Your task to perform on an android device: uninstall "Upside-Cash back on gas & food" Image 0: 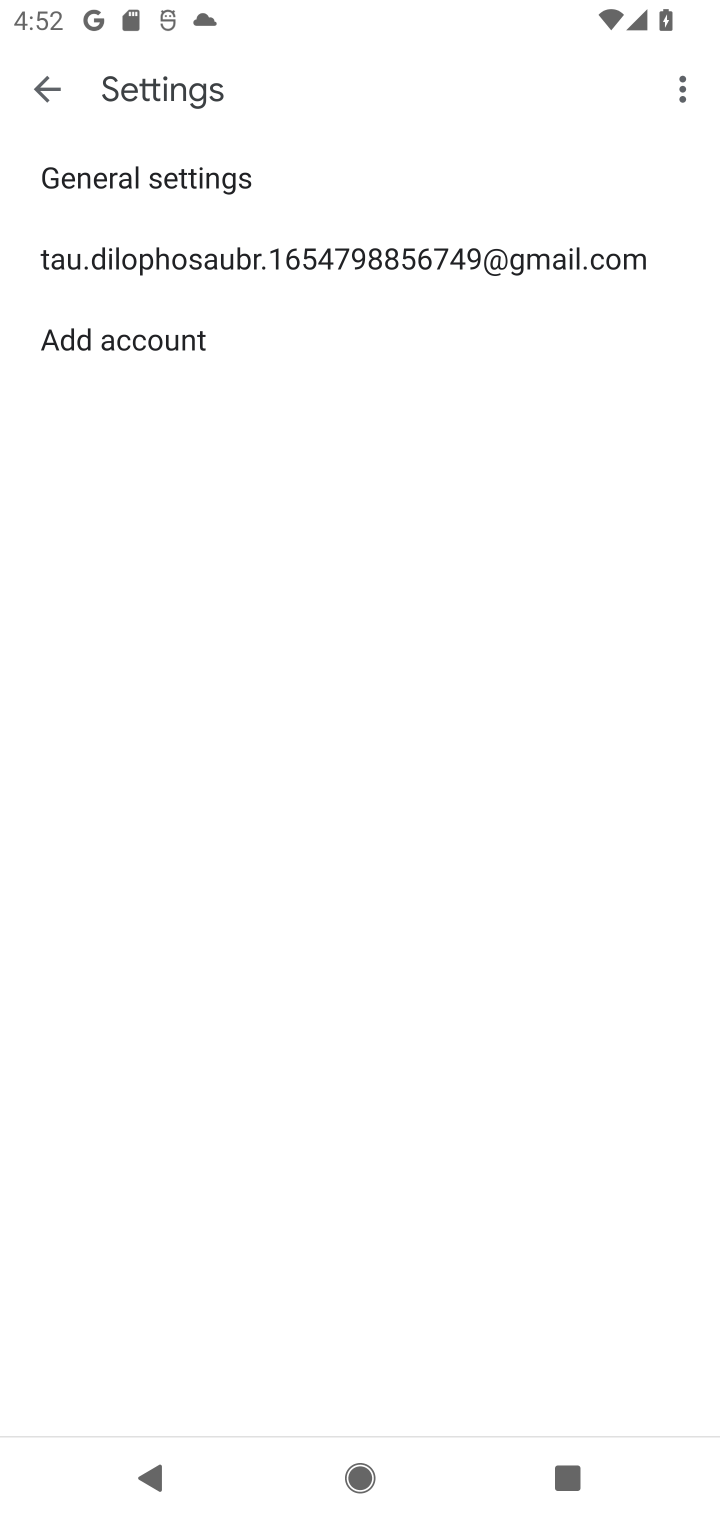
Step 0: press home button
Your task to perform on an android device: uninstall "Upside-Cash back on gas & food" Image 1: 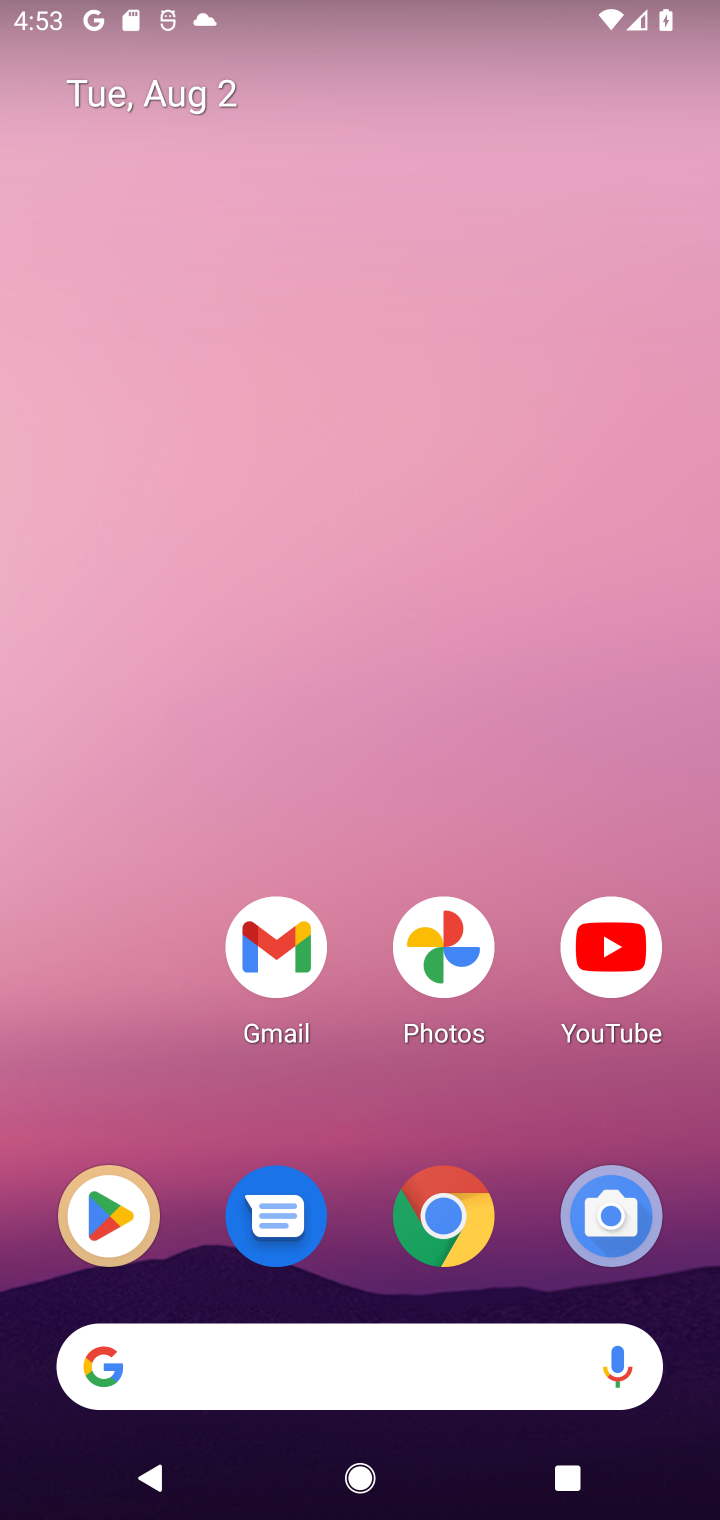
Step 1: click (88, 1254)
Your task to perform on an android device: uninstall "Upside-Cash back on gas & food" Image 2: 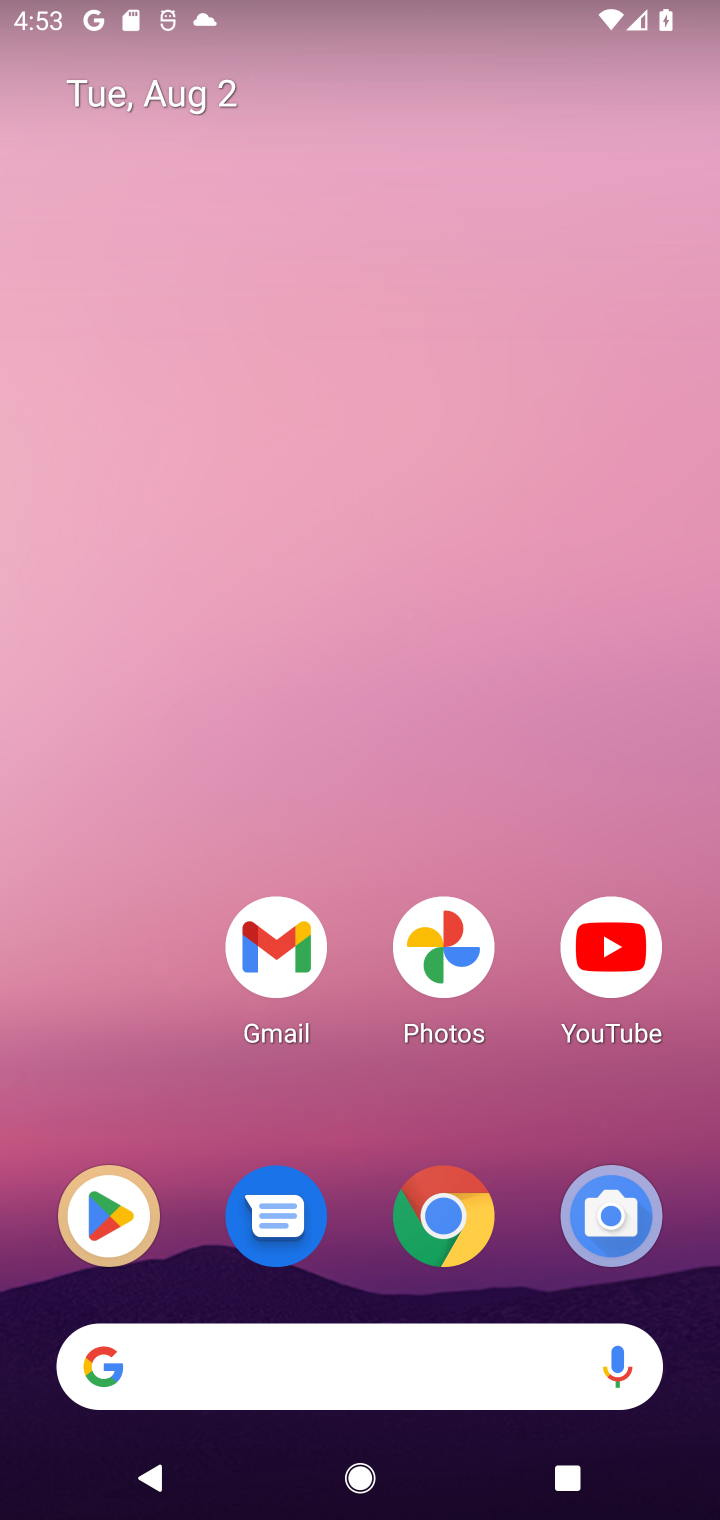
Step 2: click (128, 1241)
Your task to perform on an android device: uninstall "Upside-Cash back on gas & food" Image 3: 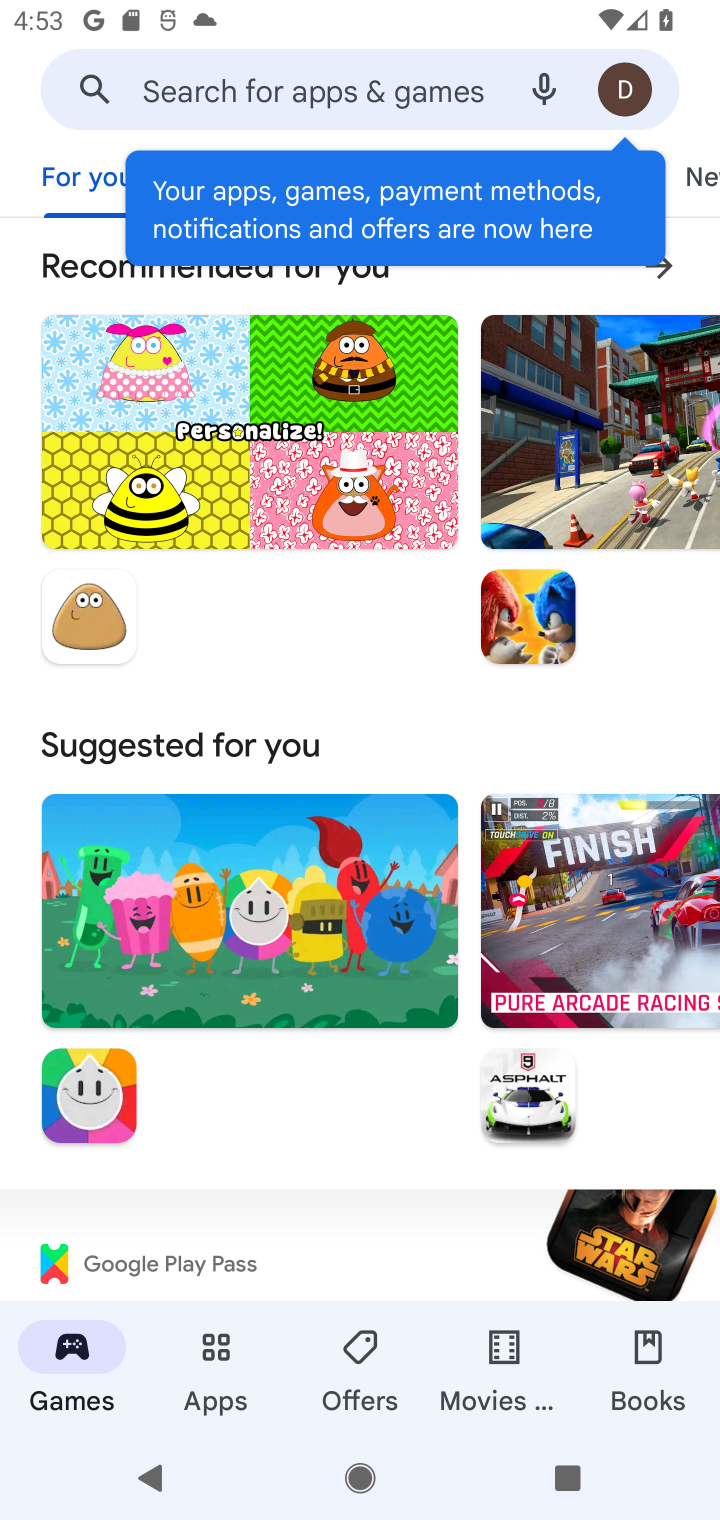
Step 3: click (416, 92)
Your task to perform on an android device: uninstall "Upside-Cash back on gas & food" Image 4: 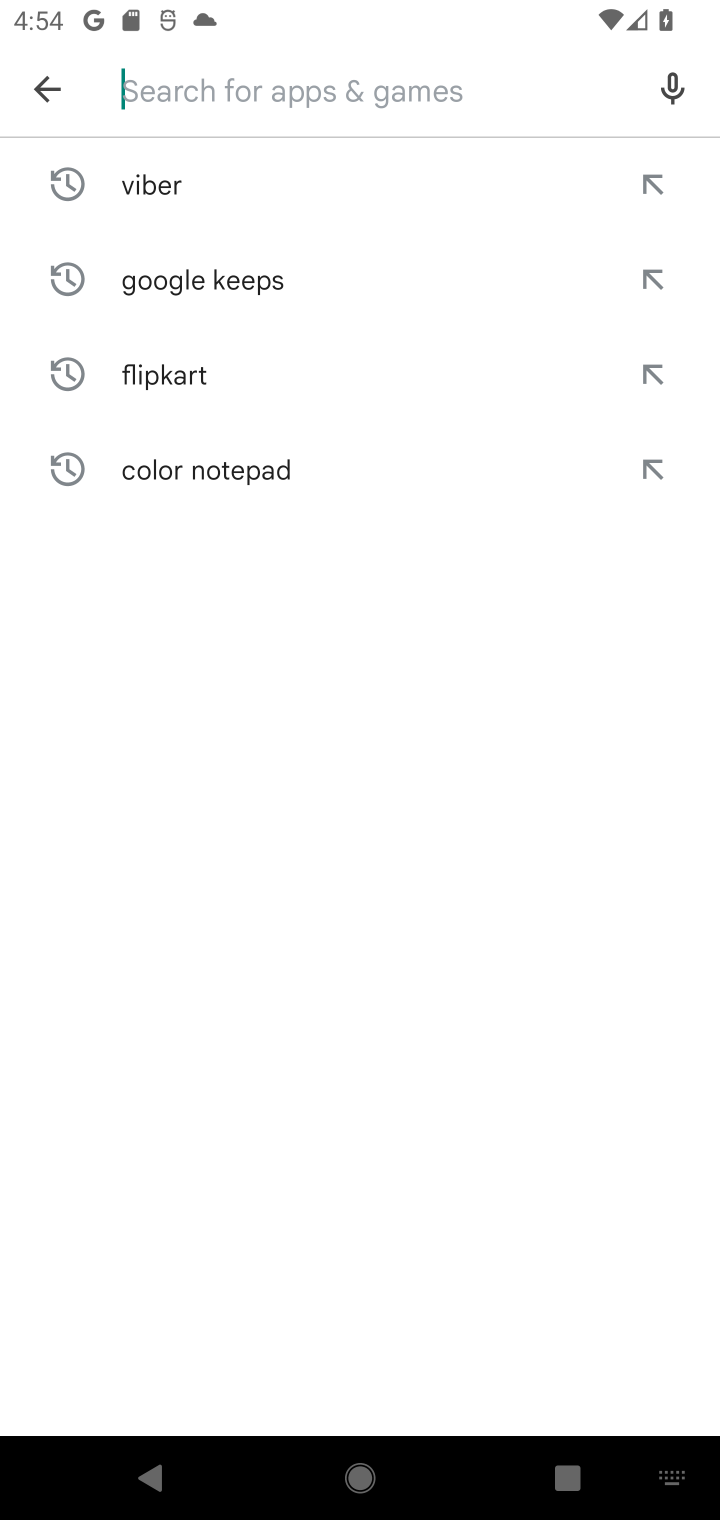
Step 4: type "uside"
Your task to perform on an android device: uninstall "Upside-Cash back on gas & food" Image 5: 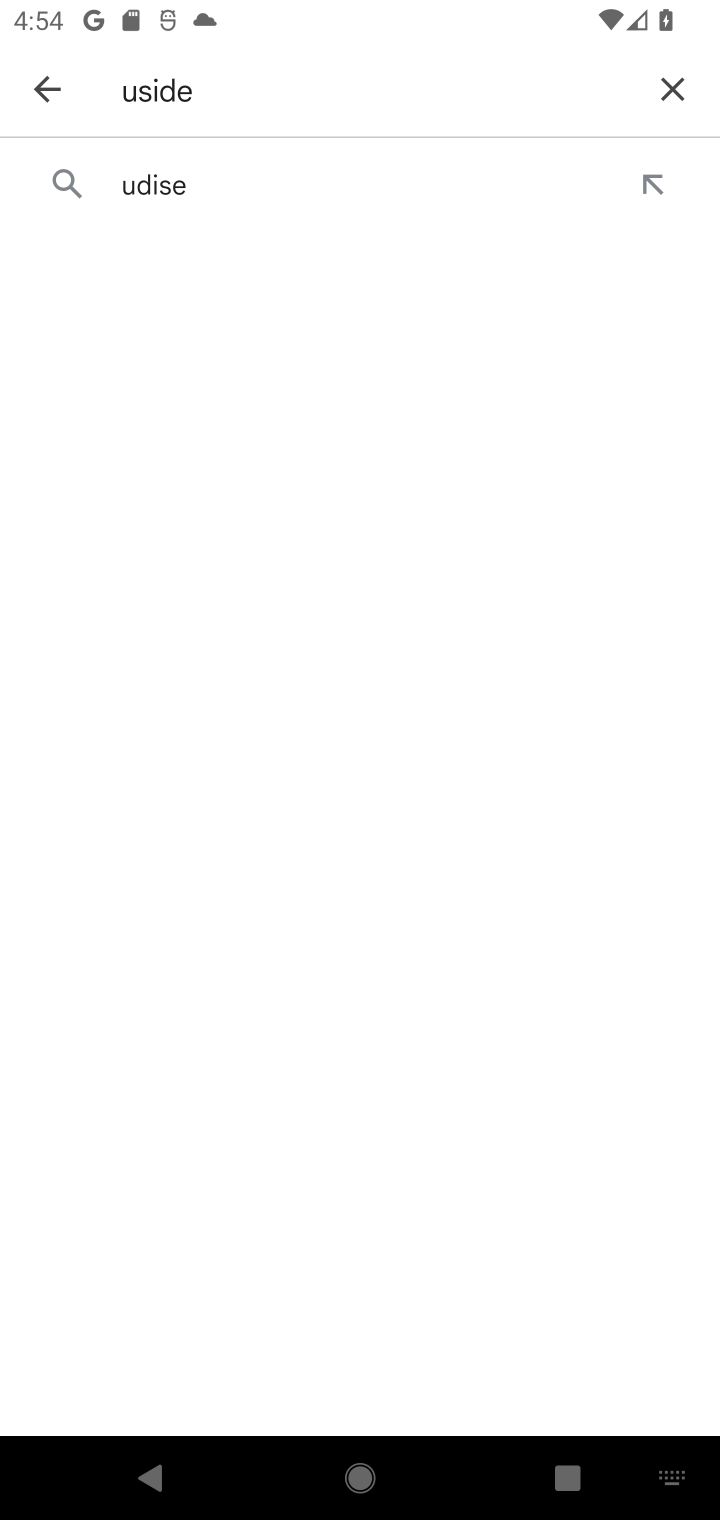
Step 5: click (241, 182)
Your task to perform on an android device: uninstall "Upside-Cash back on gas & food" Image 6: 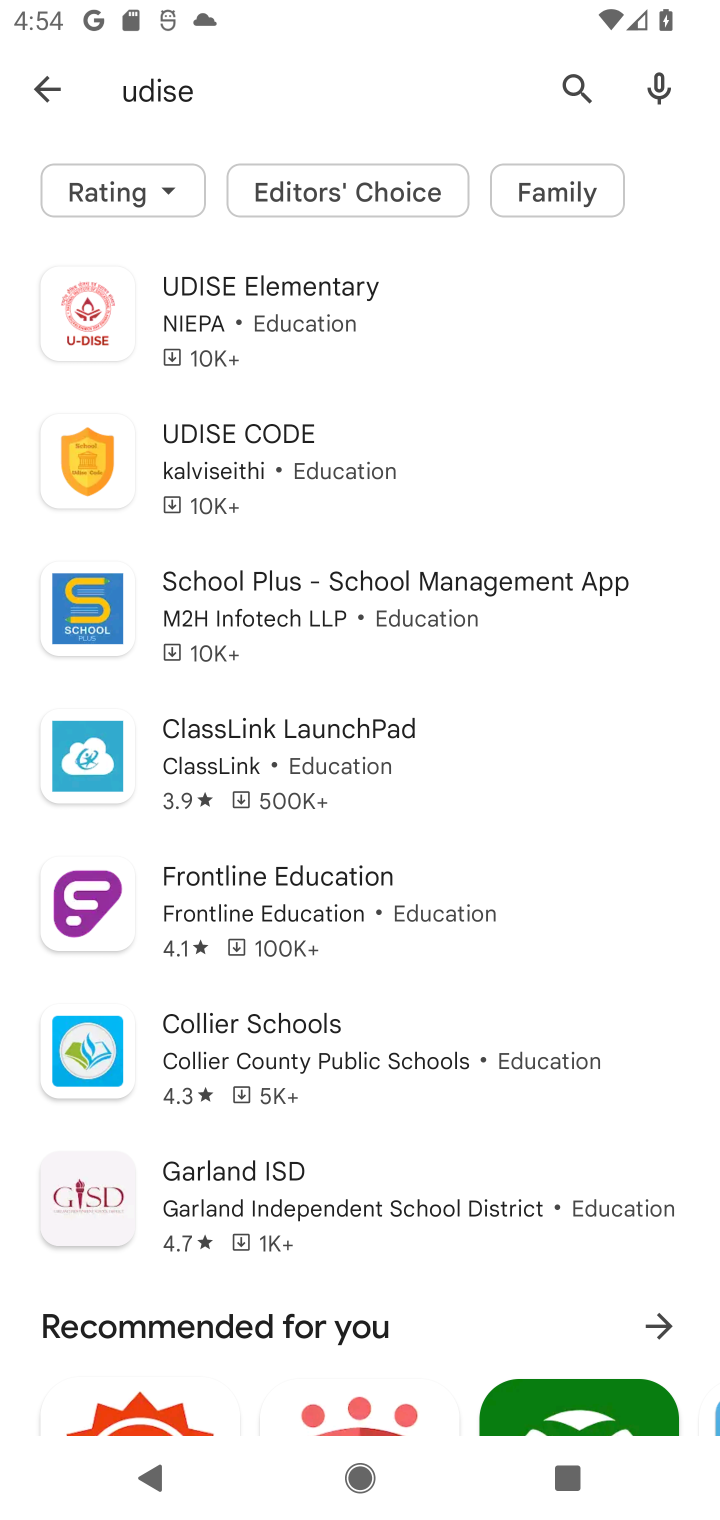
Step 6: task complete